Your task to perform on an android device: Open Google Chrome and open the bookmarks view Image 0: 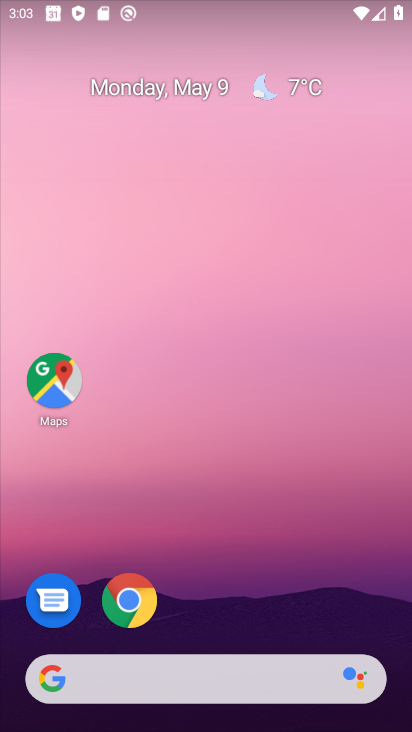
Step 0: drag from (210, 572) to (183, 1)
Your task to perform on an android device: Open Google Chrome and open the bookmarks view Image 1: 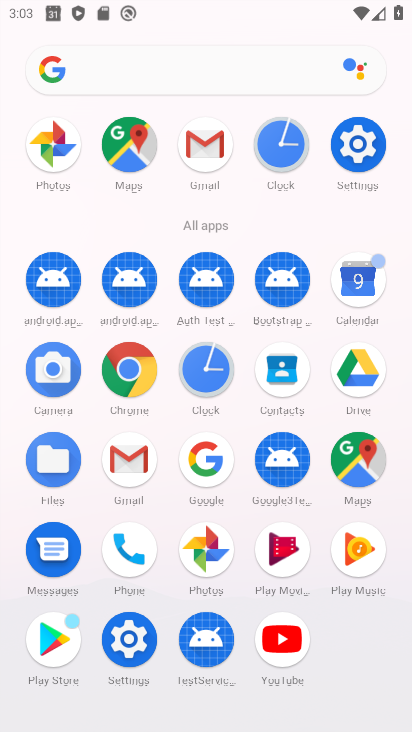
Step 1: click (129, 369)
Your task to perform on an android device: Open Google Chrome and open the bookmarks view Image 2: 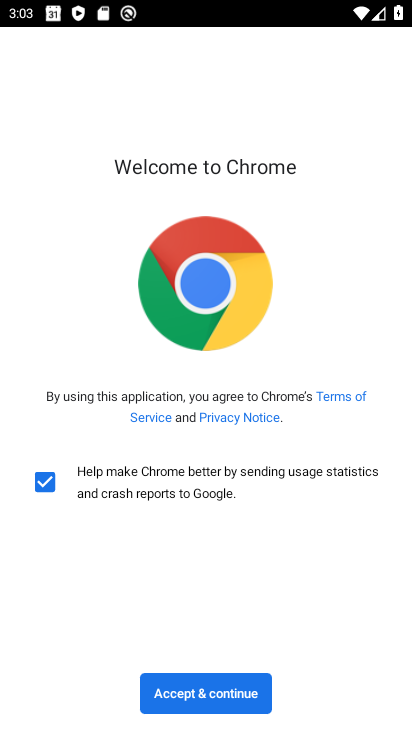
Step 2: click (197, 676)
Your task to perform on an android device: Open Google Chrome and open the bookmarks view Image 3: 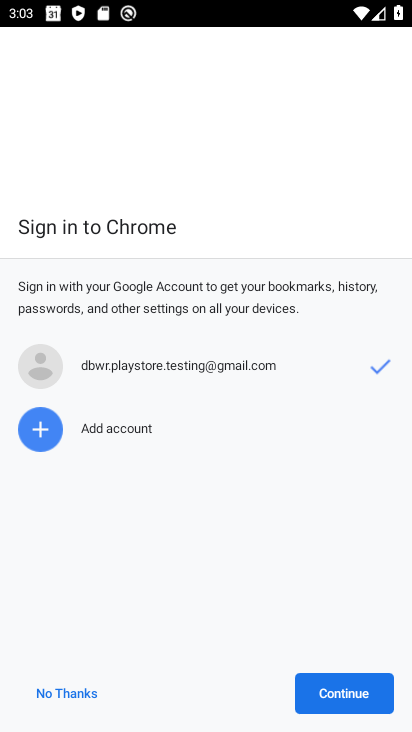
Step 3: click (359, 681)
Your task to perform on an android device: Open Google Chrome and open the bookmarks view Image 4: 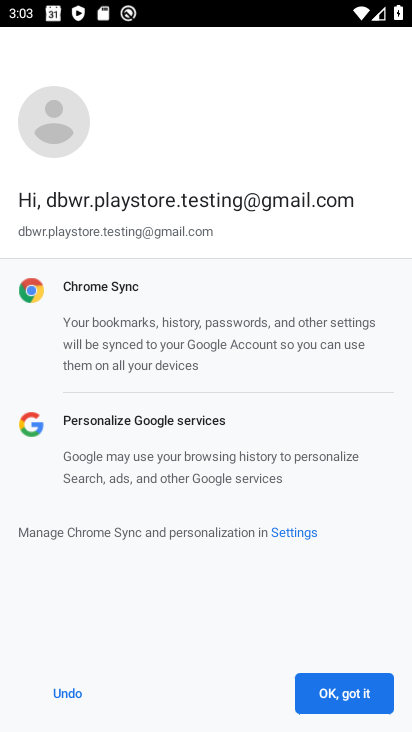
Step 4: click (351, 691)
Your task to perform on an android device: Open Google Chrome and open the bookmarks view Image 5: 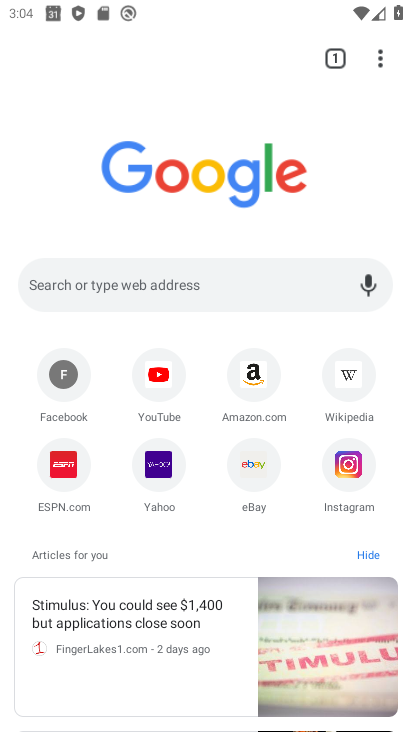
Step 5: task complete